Your task to perform on an android device: Open notification settings Image 0: 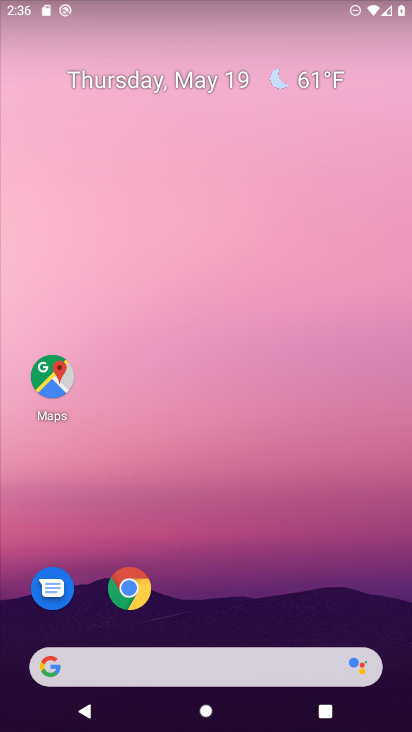
Step 0: drag from (364, 642) to (308, 55)
Your task to perform on an android device: Open notification settings Image 1: 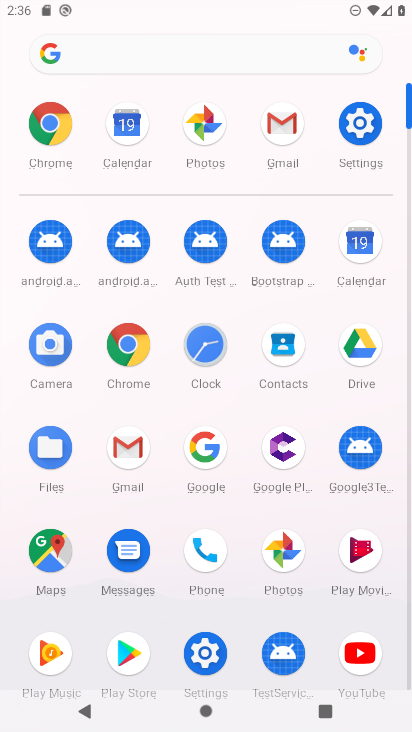
Step 1: click (357, 127)
Your task to perform on an android device: Open notification settings Image 2: 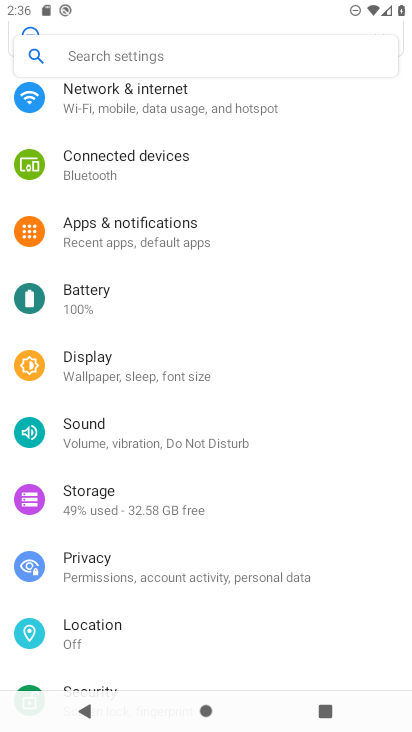
Step 2: click (146, 227)
Your task to perform on an android device: Open notification settings Image 3: 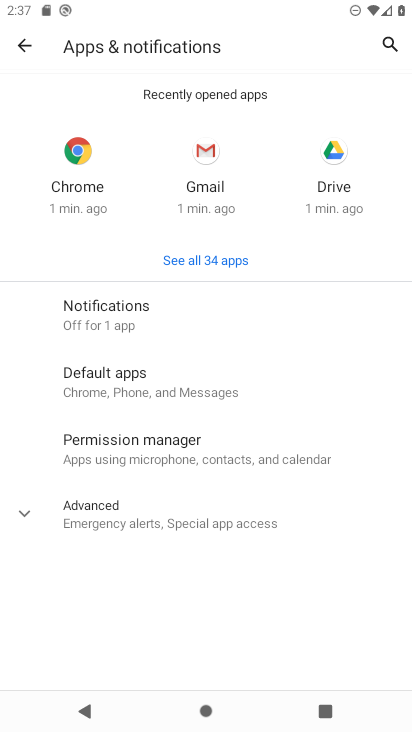
Step 3: task complete